Your task to perform on an android device: toggle wifi Image 0: 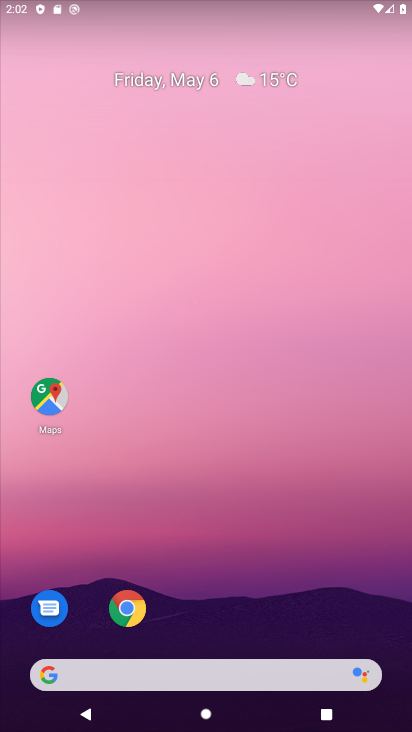
Step 0: drag from (302, 558) to (197, 45)
Your task to perform on an android device: toggle wifi Image 1: 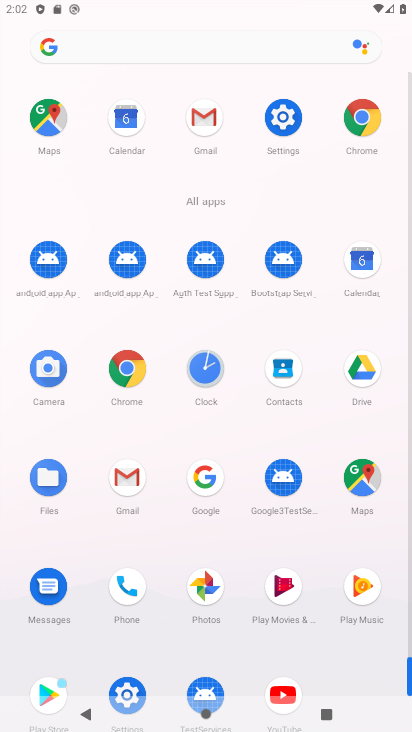
Step 1: click (284, 117)
Your task to perform on an android device: toggle wifi Image 2: 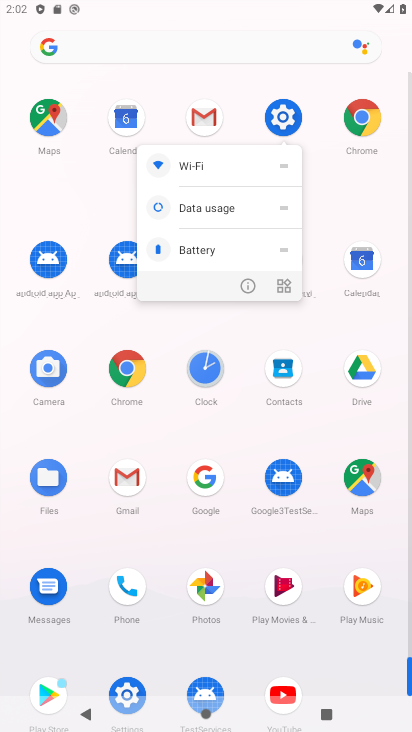
Step 2: click (284, 117)
Your task to perform on an android device: toggle wifi Image 3: 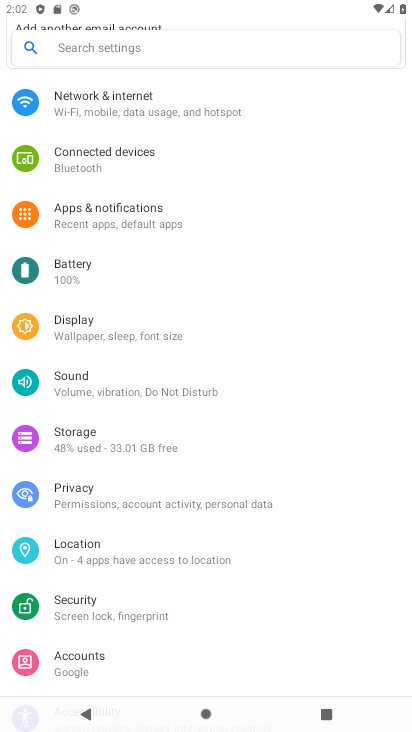
Step 3: click (182, 105)
Your task to perform on an android device: toggle wifi Image 4: 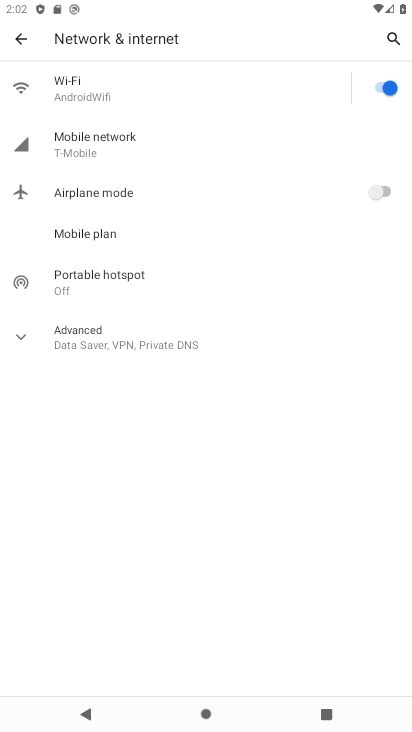
Step 4: click (391, 87)
Your task to perform on an android device: toggle wifi Image 5: 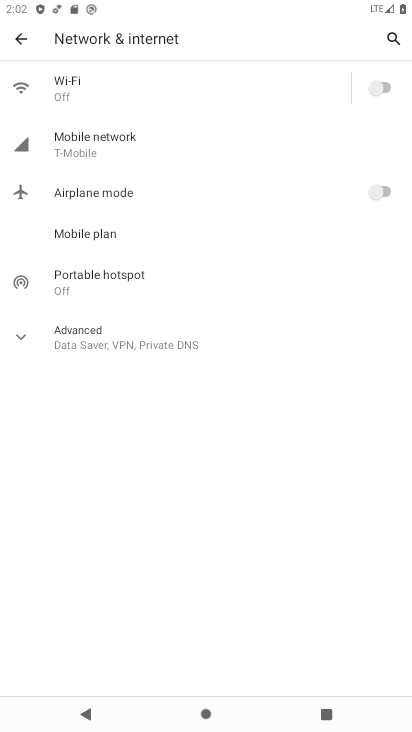
Step 5: task complete